Your task to perform on an android device: clear all cookies in the chrome app Image 0: 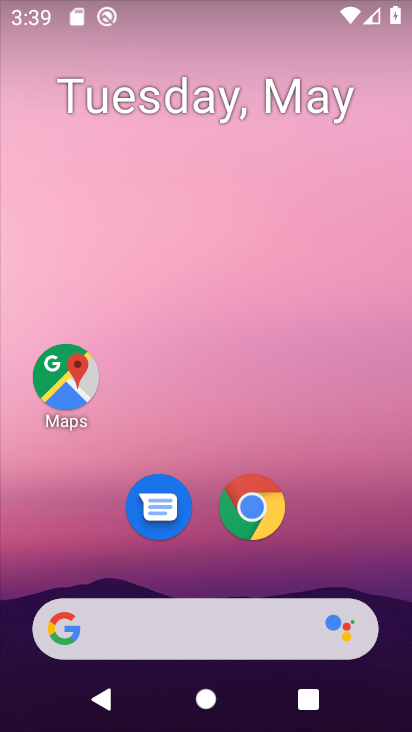
Step 0: click (248, 505)
Your task to perform on an android device: clear all cookies in the chrome app Image 1: 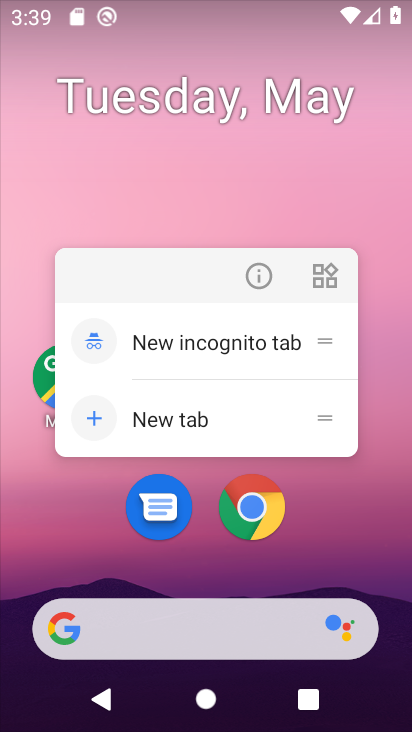
Step 1: click (248, 505)
Your task to perform on an android device: clear all cookies in the chrome app Image 2: 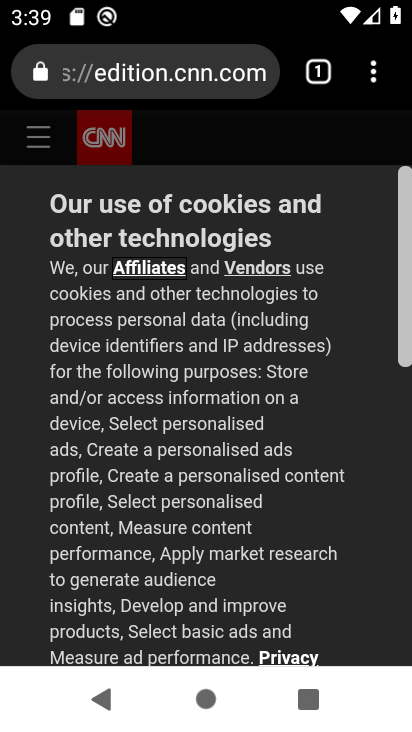
Step 2: click (395, 99)
Your task to perform on an android device: clear all cookies in the chrome app Image 3: 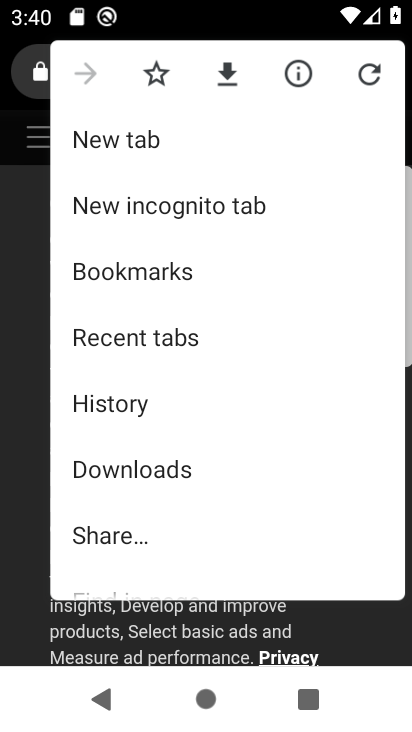
Step 3: click (140, 401)
Your task to perform on an android device: clear all cookies in the chrome app Image 4: 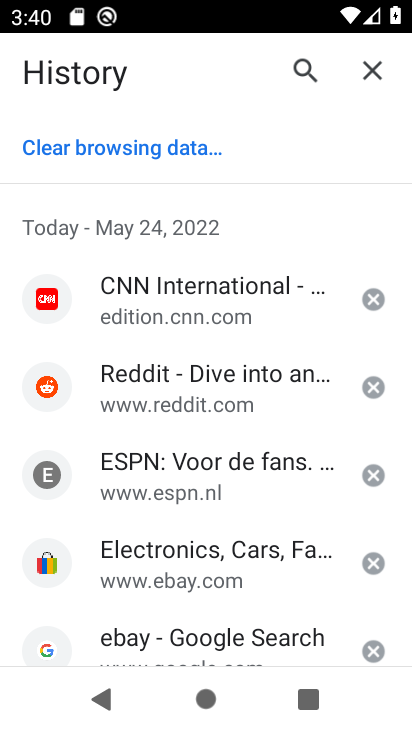
Step 4: click (151, 142)
Your task to perform on an android device: clear all cookies in the chrome app Image 5: 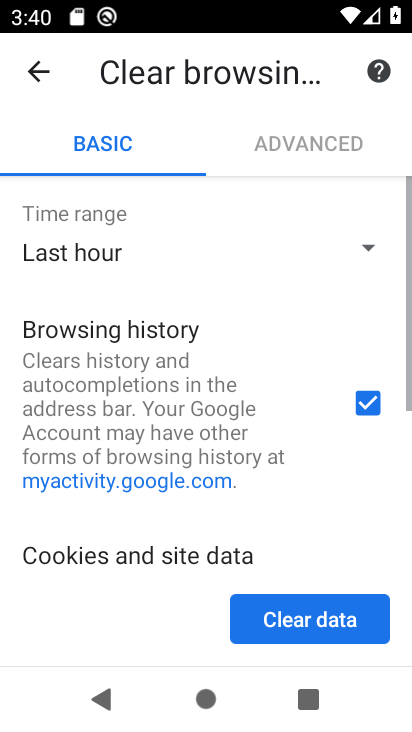
Step 5: drag from (299, 529) to (319, 407)
Your task to perform on an android device: clear all cookies in the chrome app Image 6: 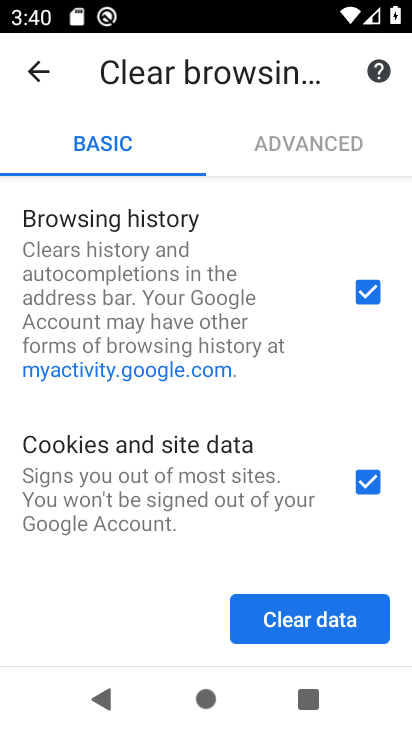
Step 6: click (336, 246)
Your task to perform on an android device: clear all cookies in the chrome app Image 7: 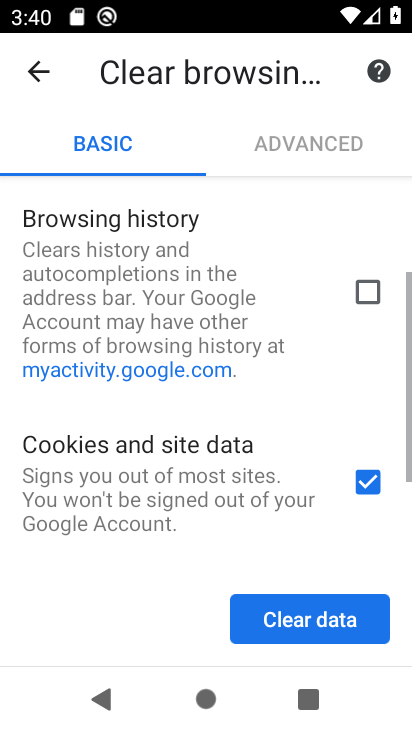
Step 7: drag from (286, 465) to (329, 219)
Your task to perform on an android device: clear all cookies in the chrome app Image 8: 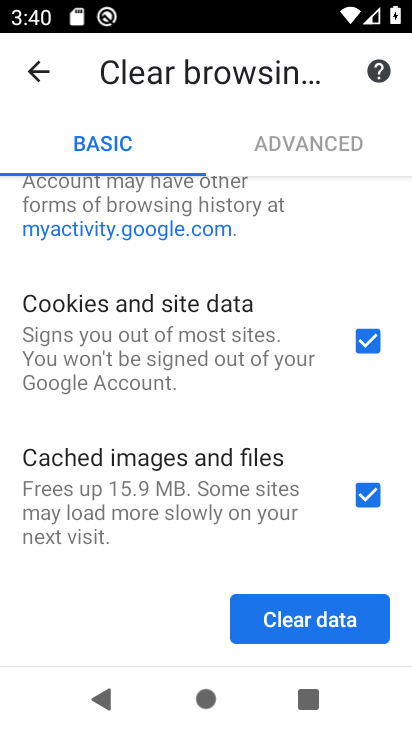
Step 8: click (325, 492)
Your task to perform on an android device: clear all cookies in the chrome app Image 9: 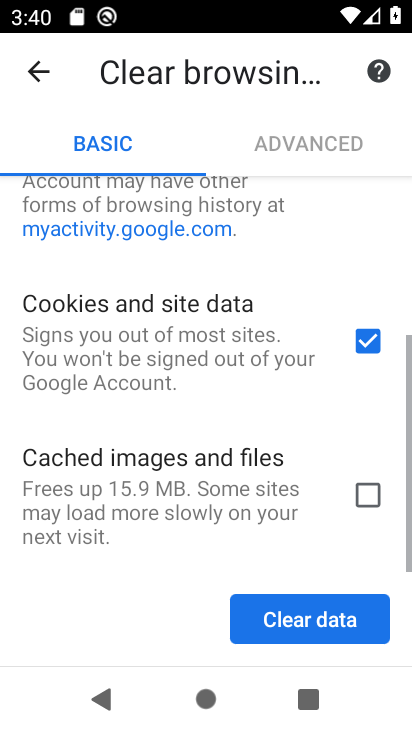
Step 9: click (348, 629)
Your task to perform on an android device: clear all cookies in the chrome app Image 10: 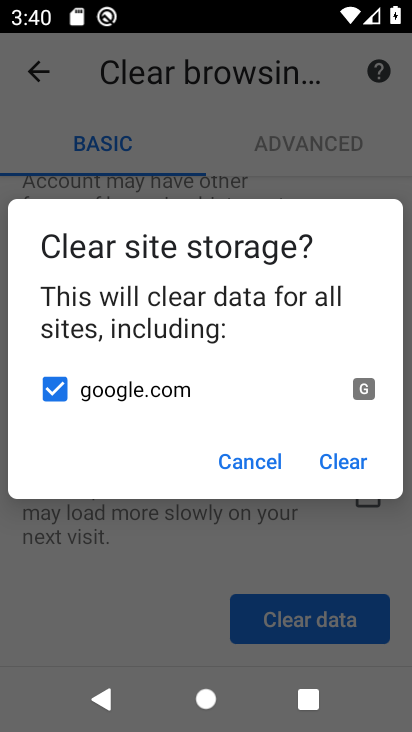
Step 10: click (336, 465)
Your task to perform on an android device: clear all cookies in the chrome app Image 11: 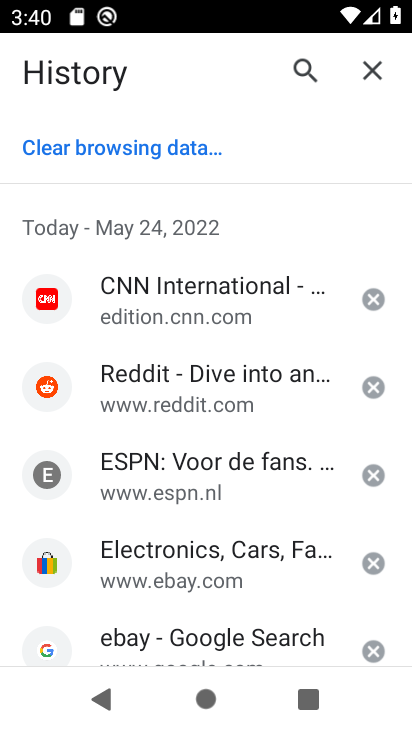
Step 11: task complete